Your task to perform on an android device: Go to display settings Image 0: 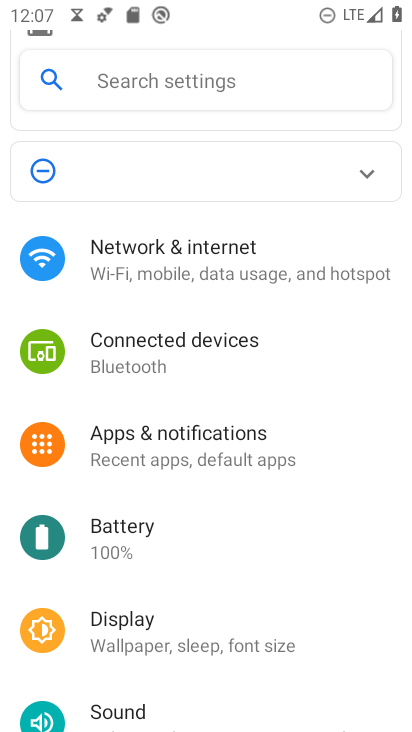
Step 0: click (187, 633)
Your task to perform on an android device: Go to display settings Image 1: 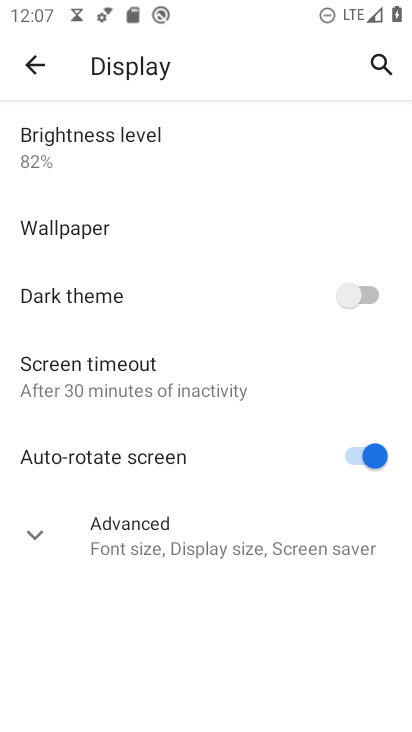
Step 1: click (160, 521)
Your task to perform on an android device: Go to display settings Image 2: 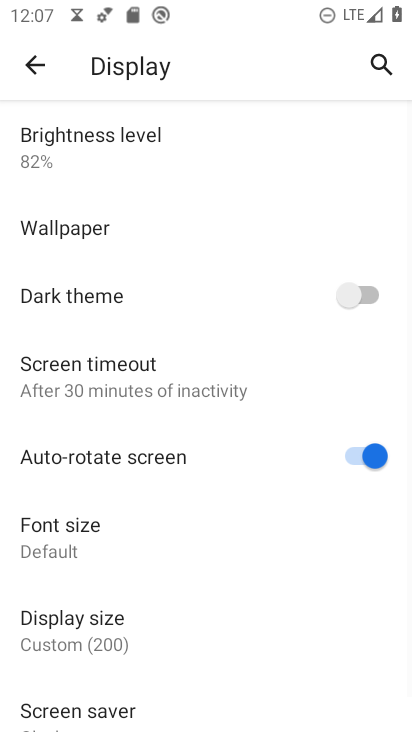
Step 2: task complete